Your task to perform on an android device: check battery use Image 0: 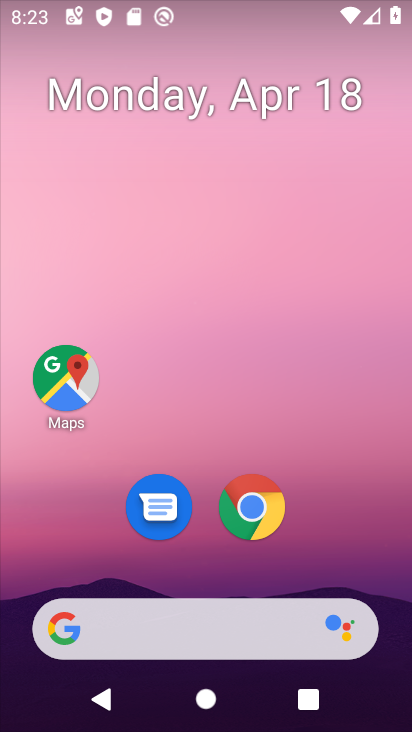
Step 0: drag from (213, 562) to (250, 306)
Your task to perform on an android device: check battery use Image 1: 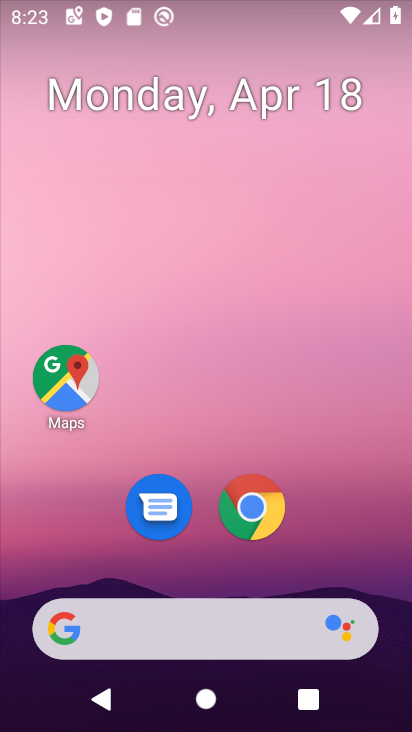
Step 1: drag from (220, 539) to (223, 63)
Your task to perform on an android device: check battery use Image 2: 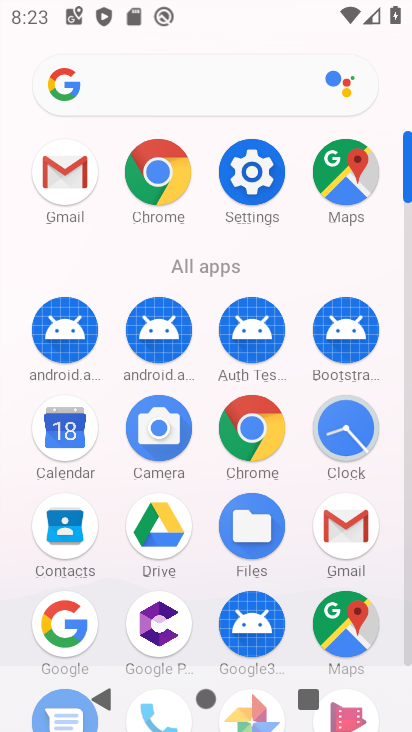
Step 2: click (243, 172)
Your task to perform on an android device: check battery use Image 3: 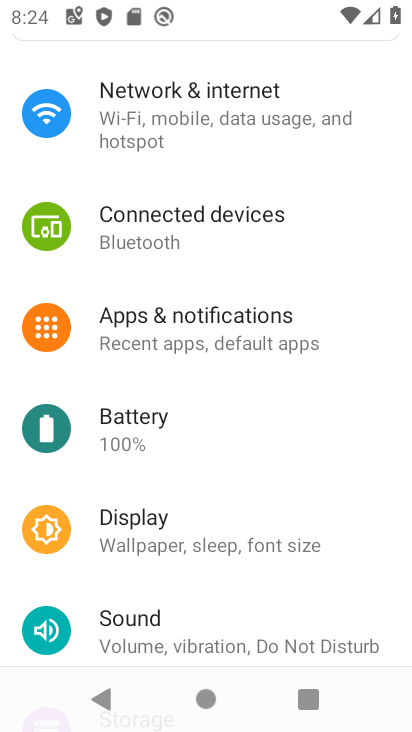
Step 3: click (142, 433)
Your task to perform on an android device: check battery use Image 4: 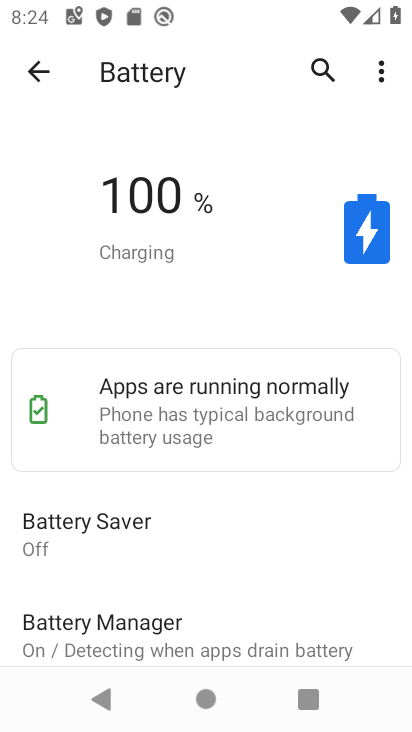
Step 4: click (377, 67)
Your task to perform on an android device: check battery use Image 5: 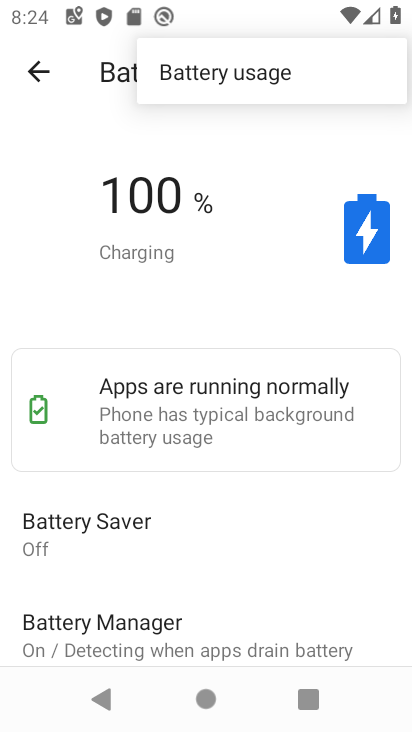
Step 5: click (291, 78)
Your task to perform on an android device: check battery use Image 6: 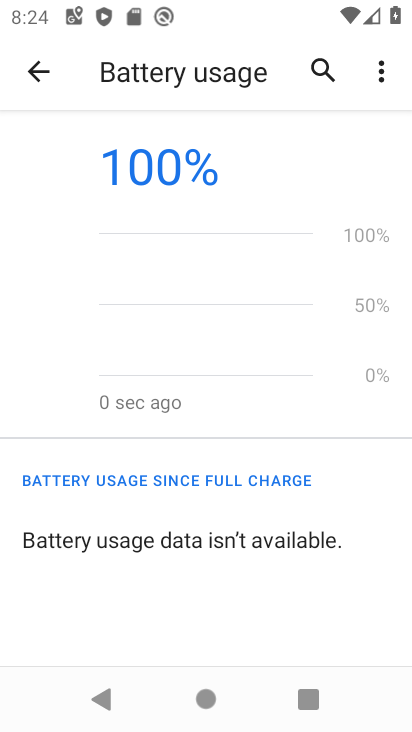
Step 6: task complete